Your task to perform on an android device: set the stopwatch Image 0: 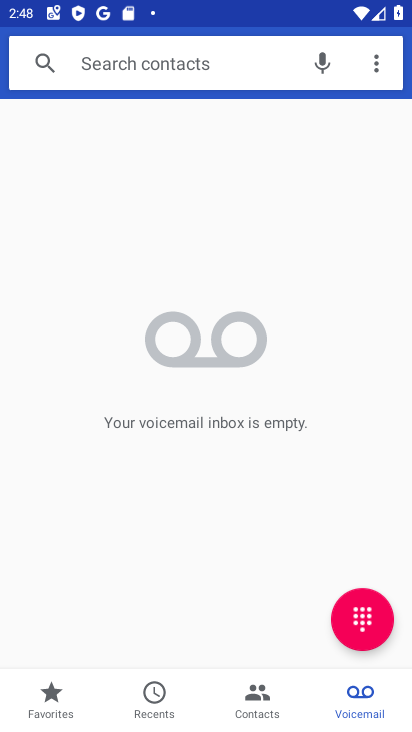
Step 0: press home button
Your task to perform on an android device: set the stopwatch Image 1: 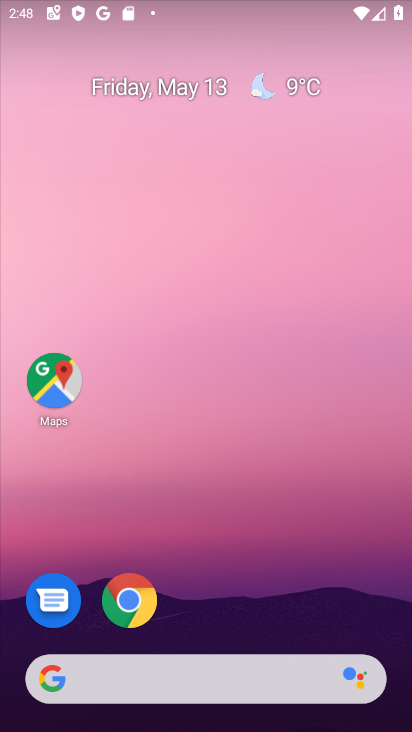
Step 1: drag from (195, 621) to (278, 164)
Your task to perform on an android device: set the stopwatch Image 2: 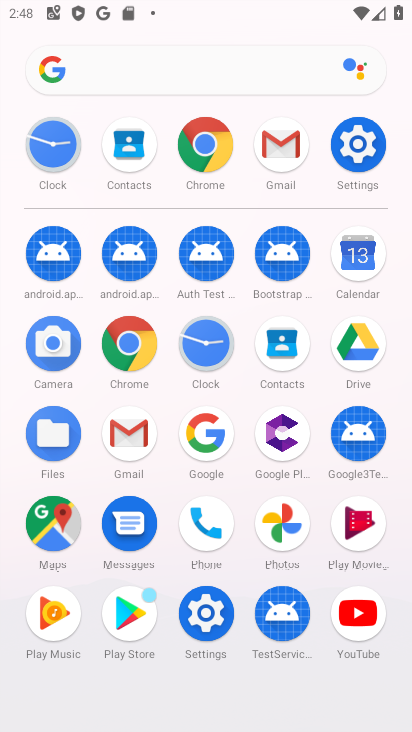
Step 2: click (203, 349)
Your task to perform on an android device: set the stopwatch Image 3: 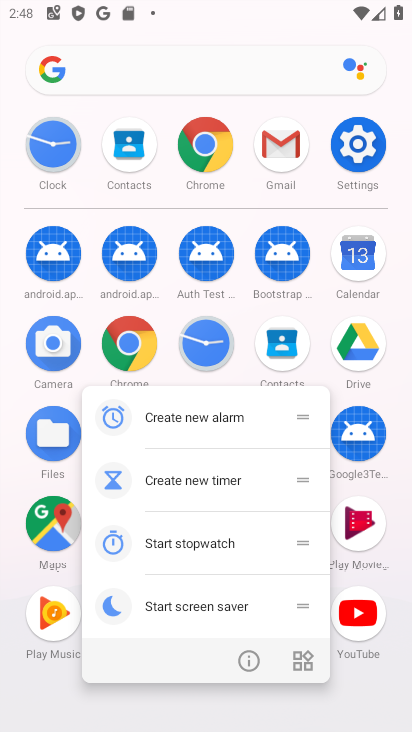
Step 3: click (251, 662)
Your task to perform on an android device: set the stopwatch Image 4: 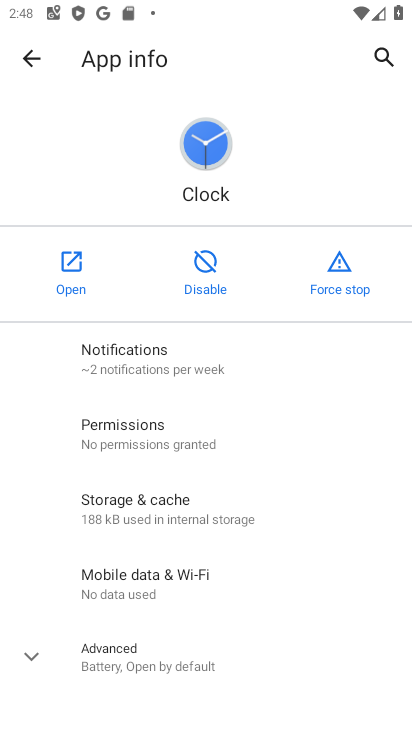
Step 4: click (83, 283)
Your task to perform on an android device: set the stopwatch Image 5: 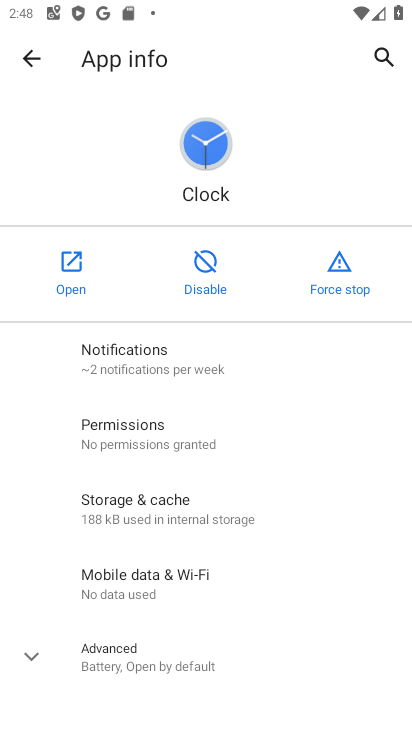
Step 5: click (83, 283)
Your task to perform on an android device: set the stopwatch Image 6: 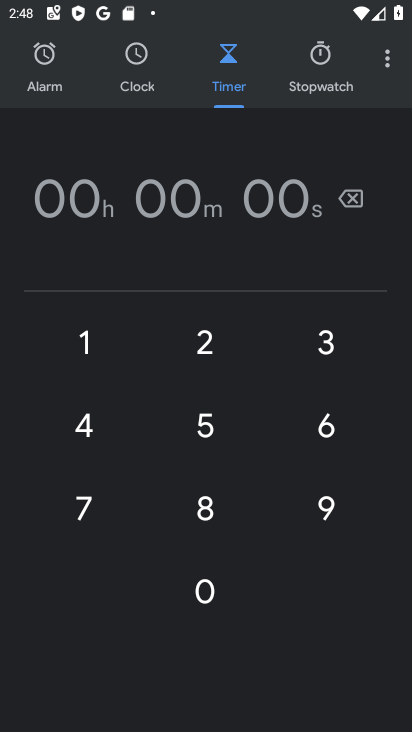
Step 6: click (319, 75)
Your task to perform on an android device: set the stopwatch Image 7: 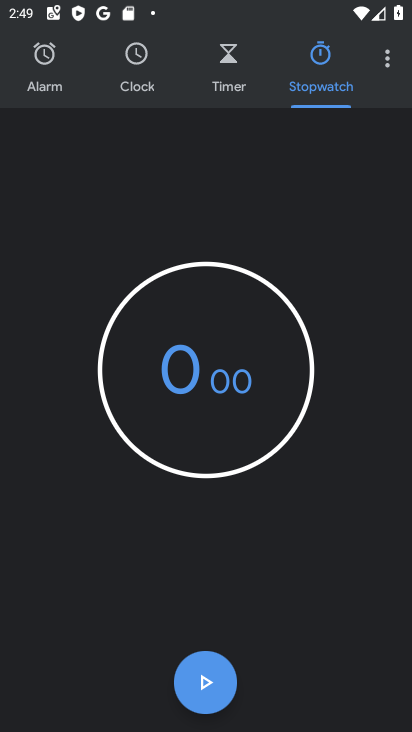
Step 7: click (208, 673)
Your task to perform on an android device: set the stopwatch Image 8: 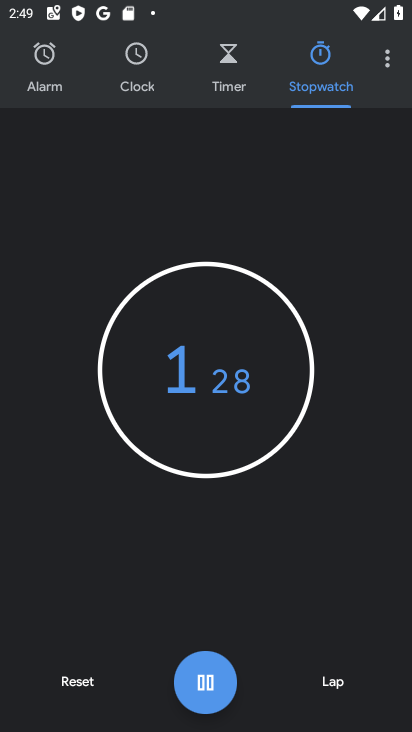
Step 8: task complete